Your task to perform on an android device: visit the assistant section in the google photos Image 0: 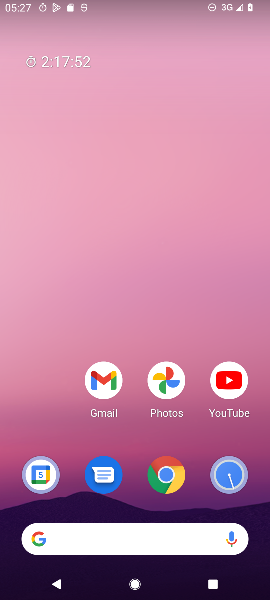
Step 0: drag from (67, 433) to (60, 190)
Your task to perform on an android device: visit the assistant section in the google photos Image 1: 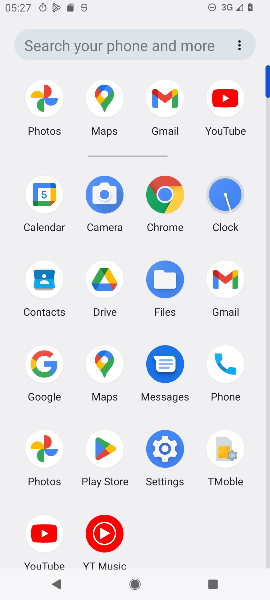
Step 1: click (47, 442)
Your task to perform on an android device: visit the assistant section in the google photos Image 2: 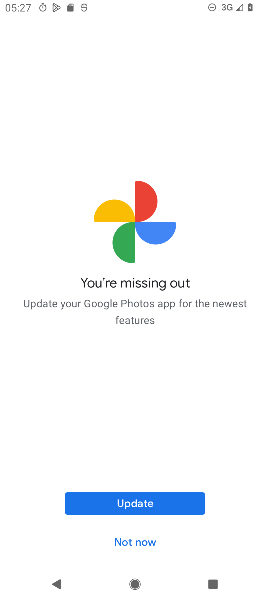
Step 2: click (138, 537)
Your task to perform on an android device: visit the assistant section in the google photos Image 3: 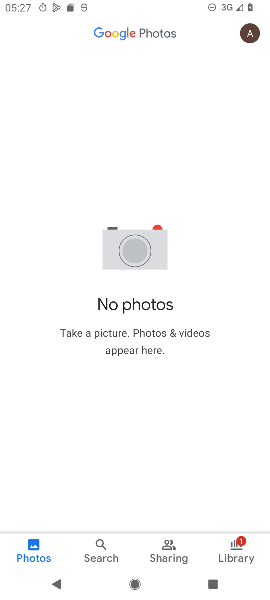
Step 3: task complete